Your task to perform on an android device: open device folders in google photos Image 0: 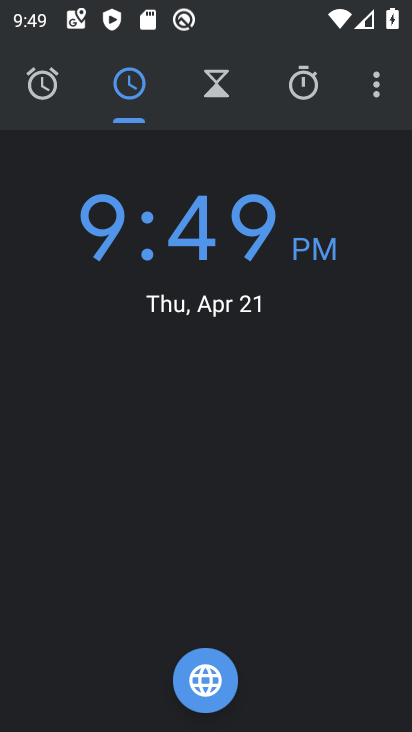
Step 0: press back button
Your task to perform on an android device: open device folders in google photos Image 1: 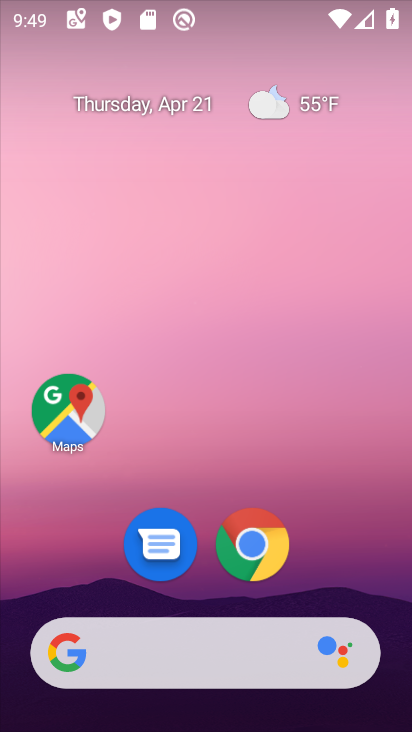
Step 1: drag from (399, 511) to (360, 22)
Your task to perform on an android device: open device folders in google photos Image 2: 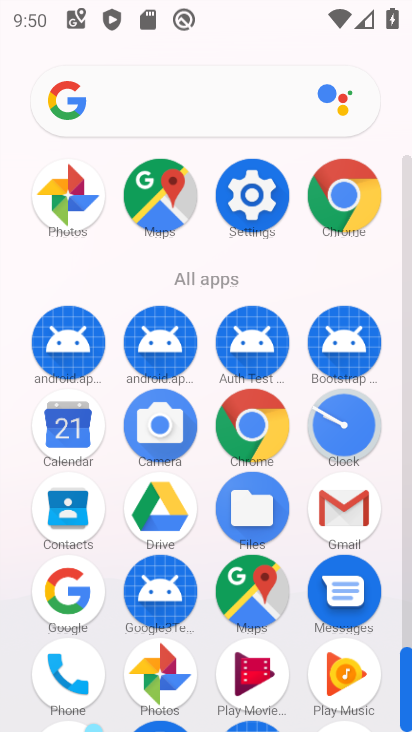
Step 2: click (160, 670)
Your task to perform on an android device: open device folders in google photos Image 3: 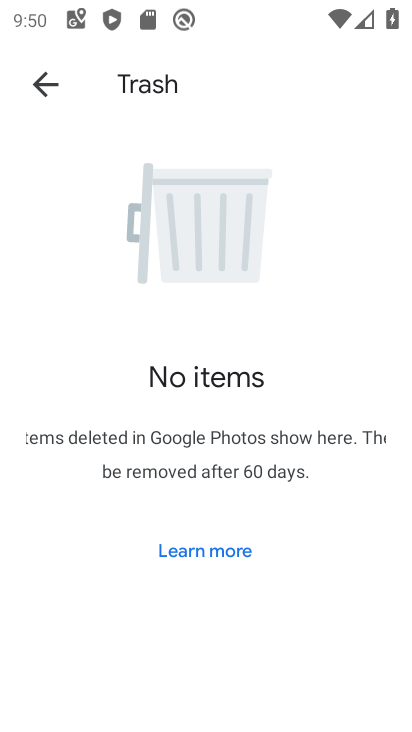
Step 3: click (39, 87)
Your task to perform on an android device: open device folders in google photos Image 4: 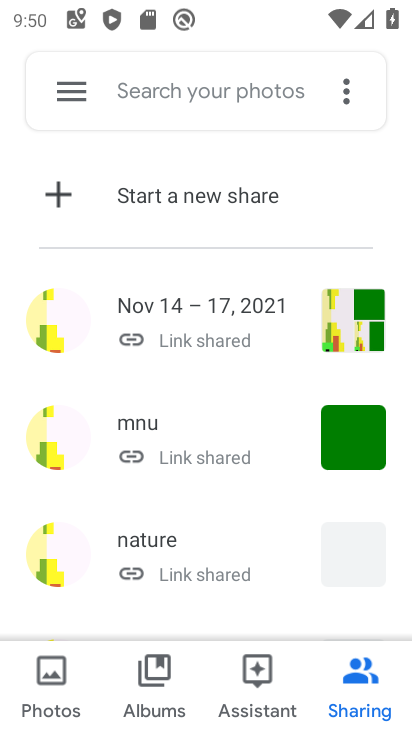
Step 4: click (70, 78)
Your task to perform on an android device: open device folders in google photos Image 5: 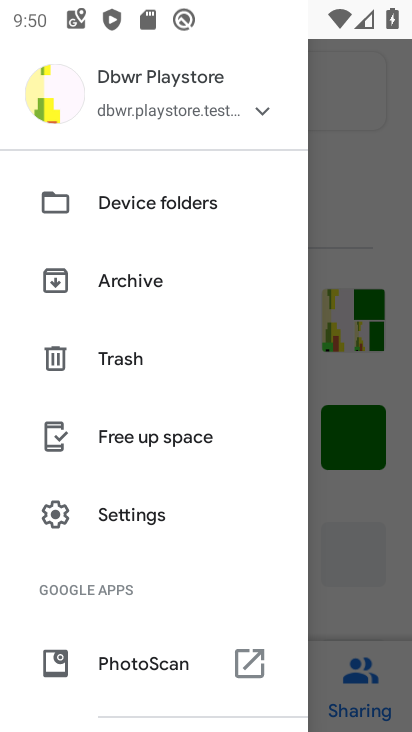
Step 5: click (153, 192)
Your task to perform on an android device: open device folders in google photos Image 6: 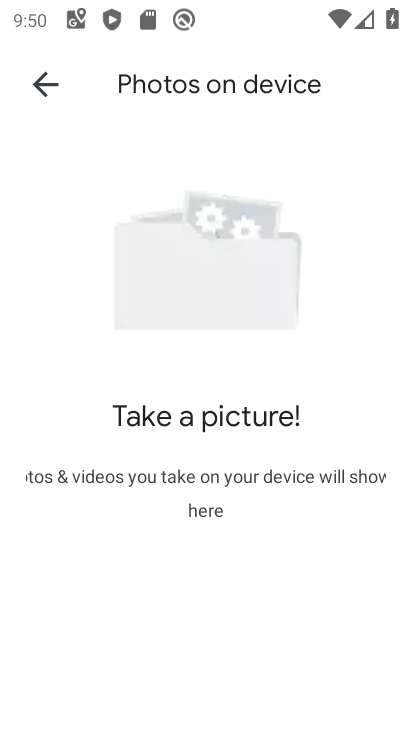
Step 6: task complete